Your task to perform on an android device: show emergency info Image 0: 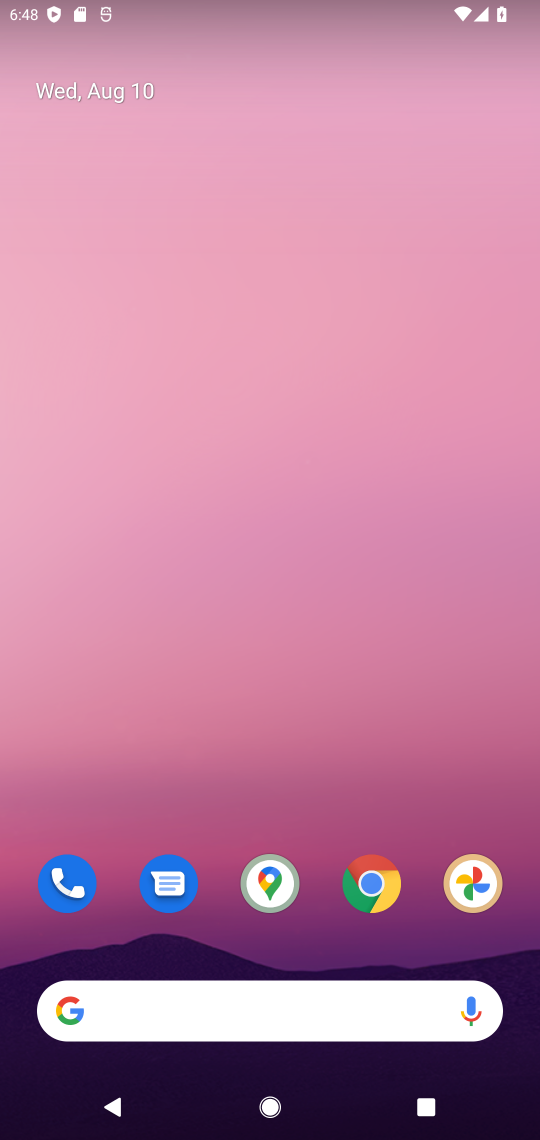
Step 0: drag from (212, 856) to (368, 227)
Your task to perform on an android device: show emergency info Image 1: 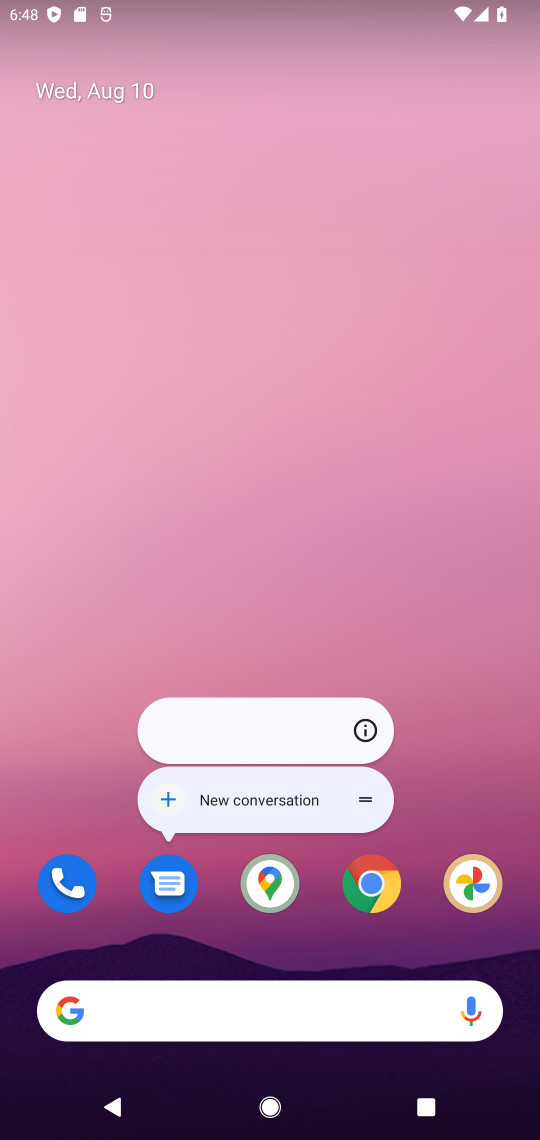
Step 1: click (266, 622)
Your task to perform on an android device: show emergency info Image 2: 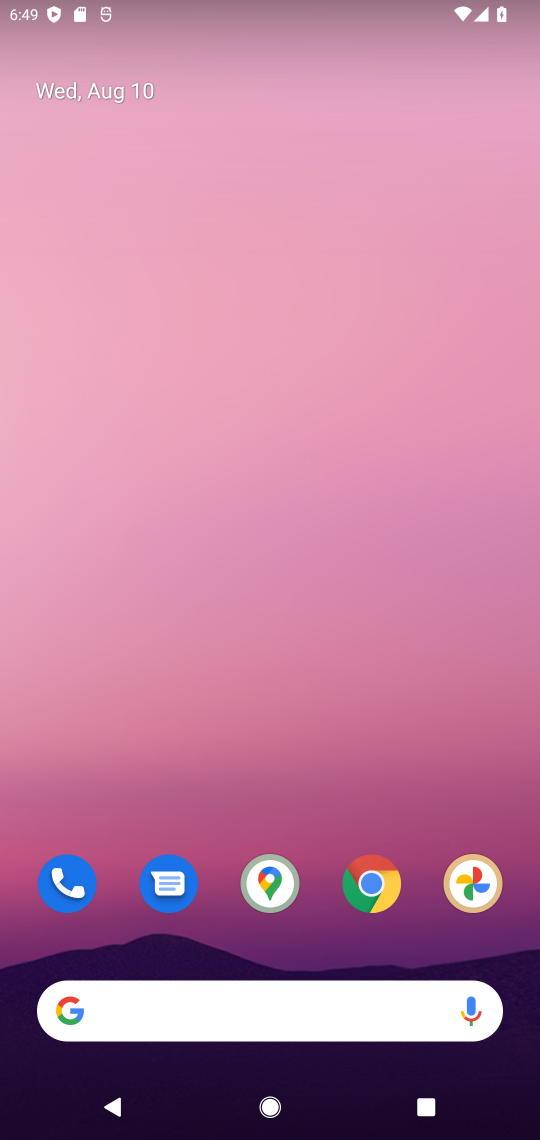
Step 2: drag from (232, 952) to (278, 105)
Your task to perform on an android device: show emergency info Image 3: 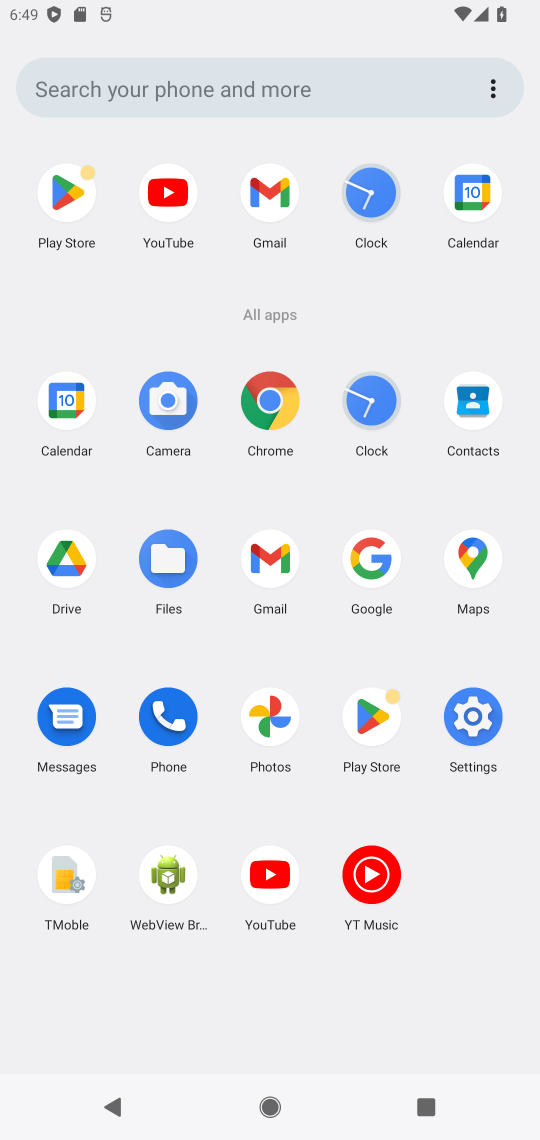
Step 3: click (462, 743)
Your task to perform on an android device: show emergency info Image 4: 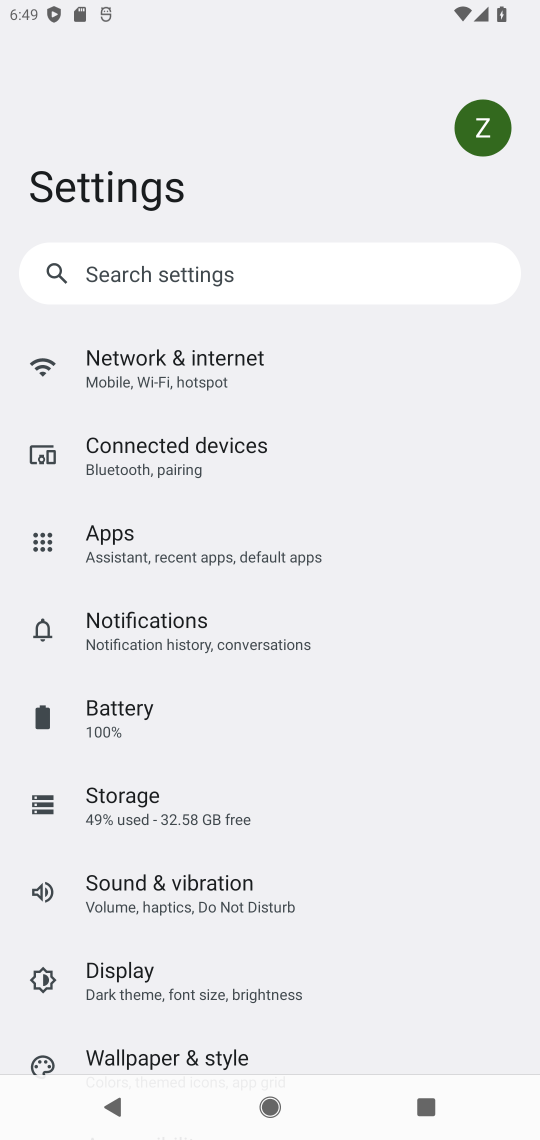
Step 4: drag from (280, 971) to (319, 472)
Your task to perform on an android device: show emergency info Image 5: 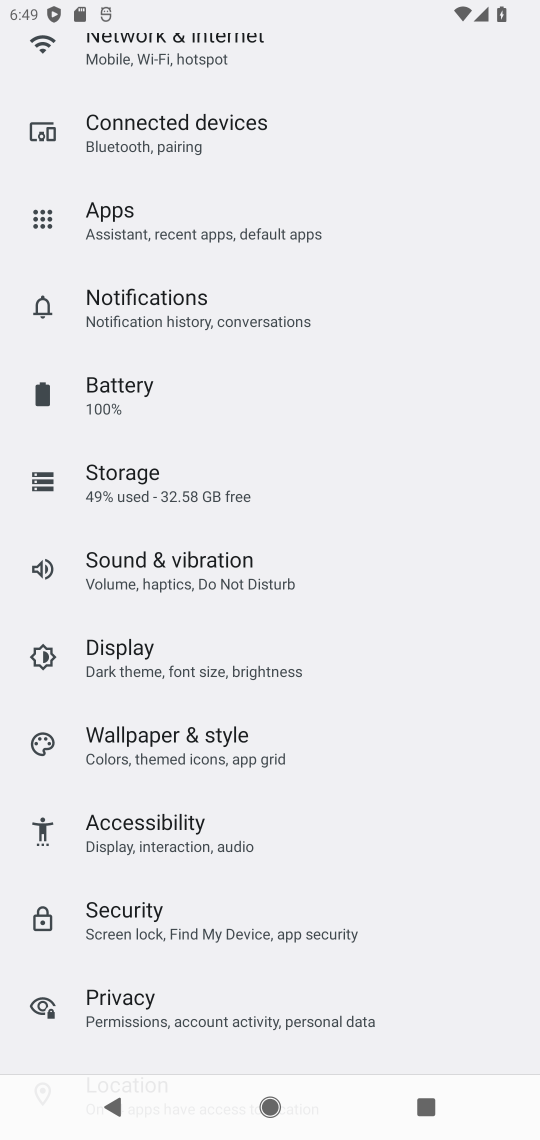
Step 5: drag from (308, 997) to (301, 429)
Your task to perform on an android device: show emergency info Image 6: 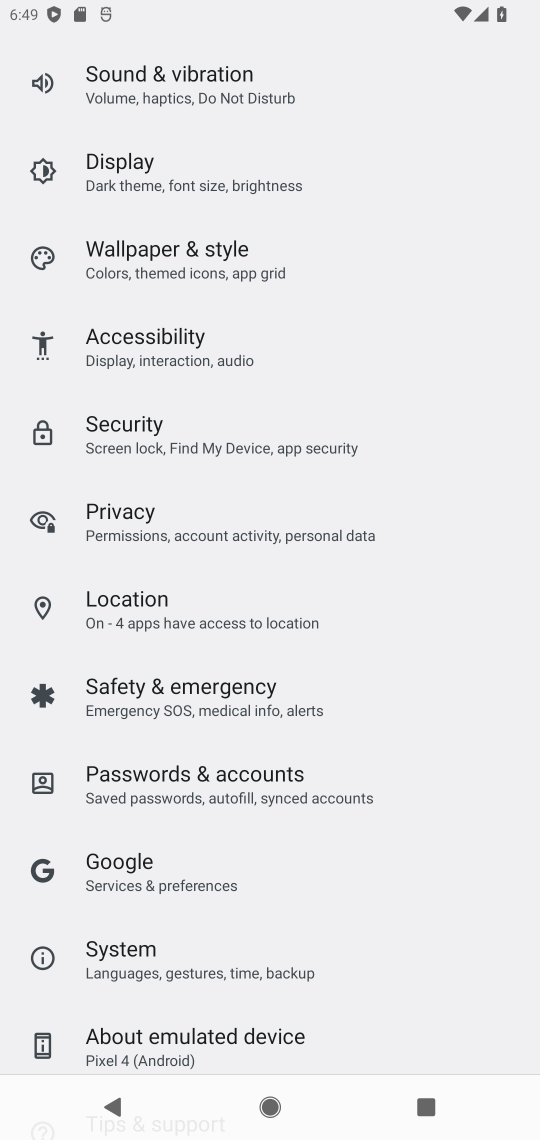
Step 6: click (121, 1042)
Your task to perform on an android device: show emergency info Image 7: 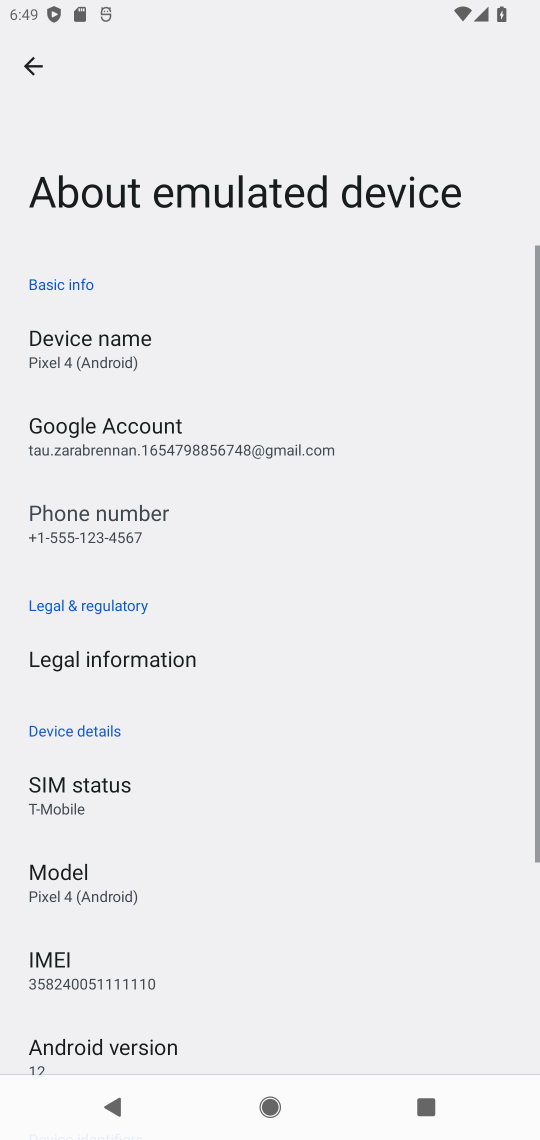
Step 7: click (29, 61)
Your task to perform on an android device: show emergency info Image 8: 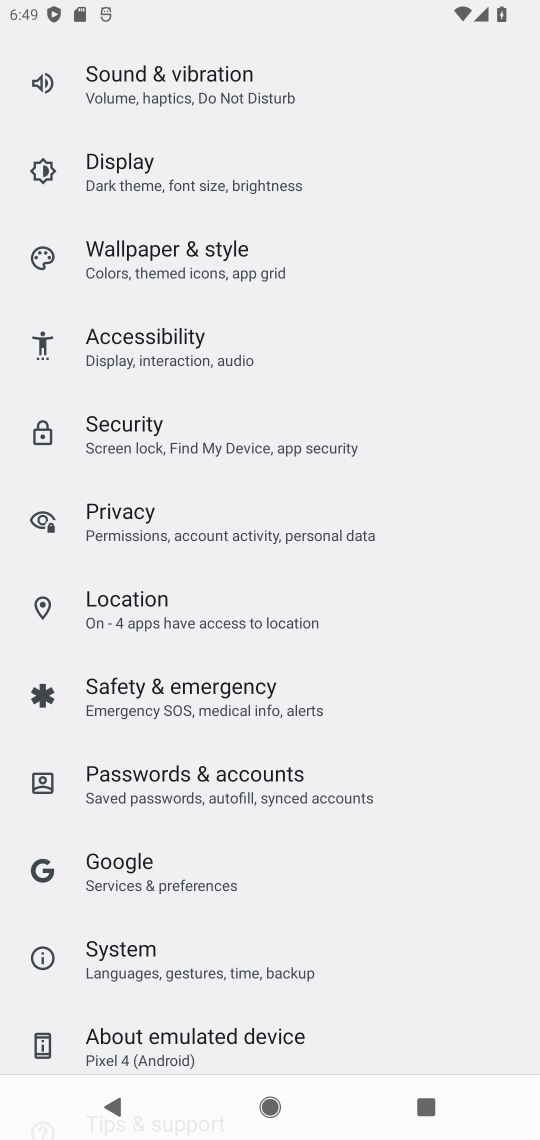
Step 8: click (322, 671)
Your task to perform on an android device: show emergency info Image 9: 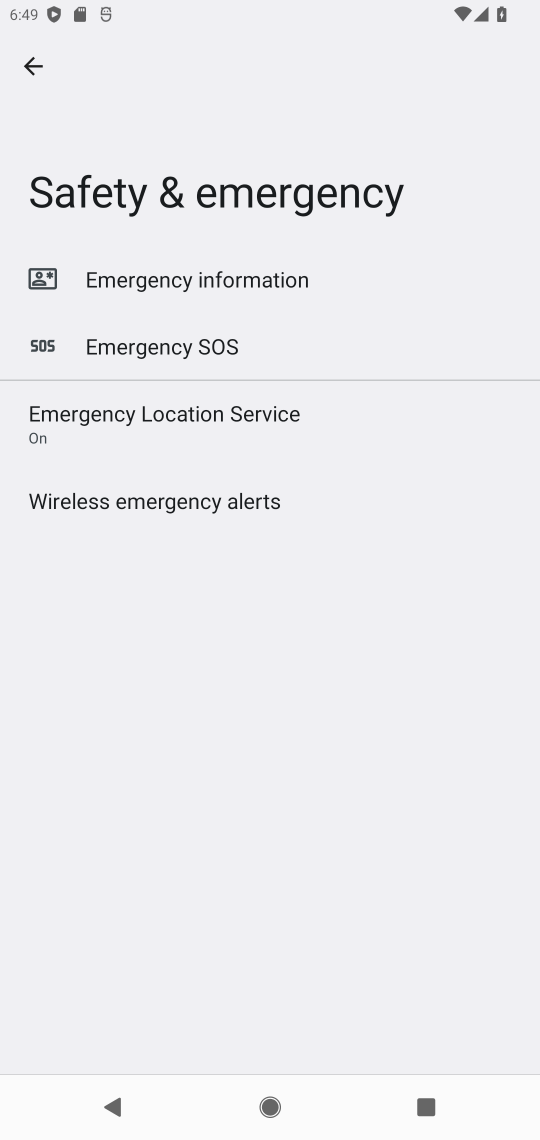
Step 9: click (358, 266)
Your task to perform on an android device: show emergency info Image 10: 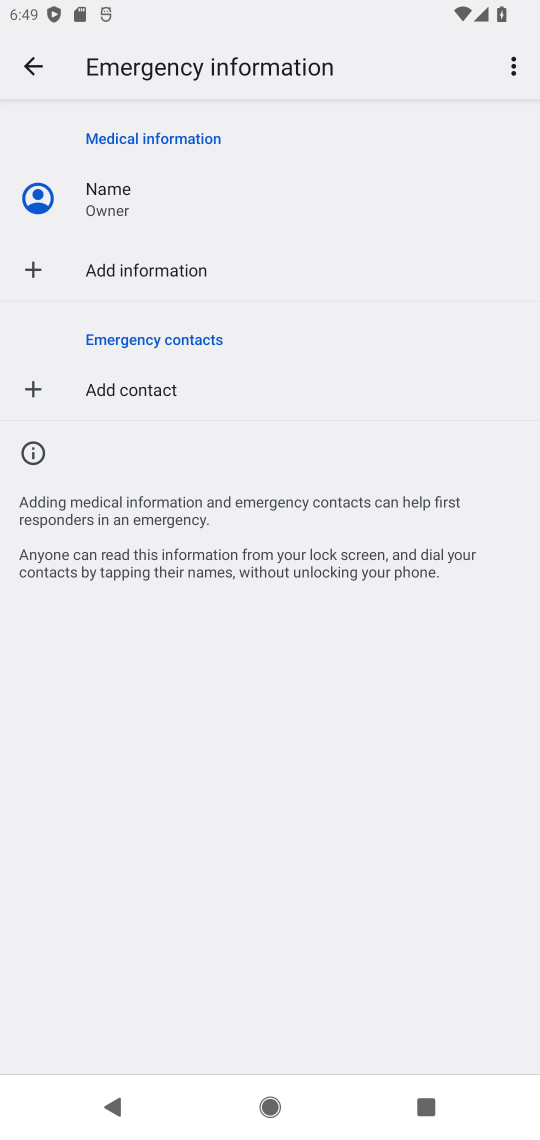
Step 10: task complete